Your task to perform on an android device: toggle show notifications on the lock screen Image 0: 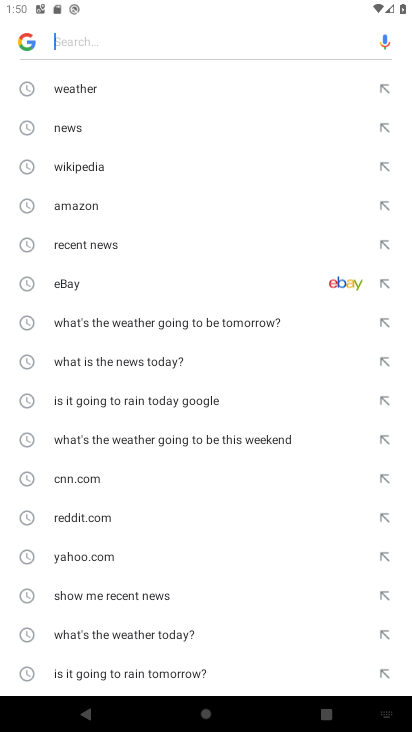
Step 0: press home button
Your task to perform on an android device: toggle show notifications on the lock screen Image 1: 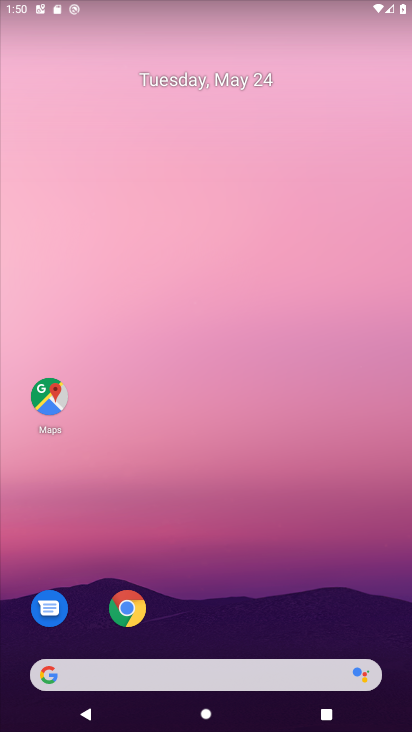
Step 1: drag from (232, 625) to (243, 136)
Your task to perform on an android device: toggle show notifications on the lock screen Image 2: 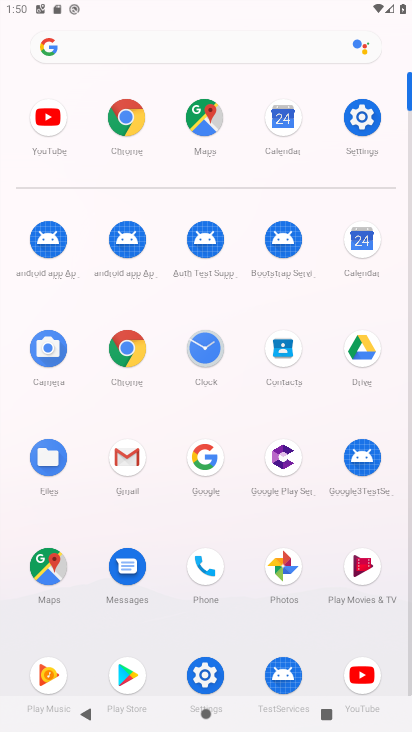
Step 2: click (372, 138)
Your task to perform on an android device: toggle show notifications on the lock screen Image 3: 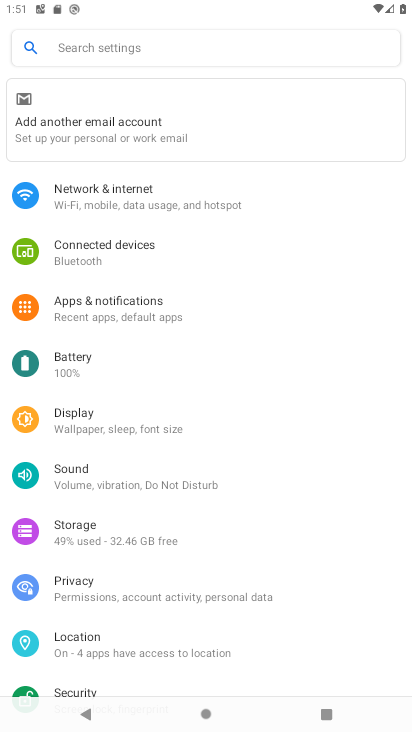
Step 3: click (129, 321)
Your task to perform on an android device: toggle show notifications on the lock screen Image 4: 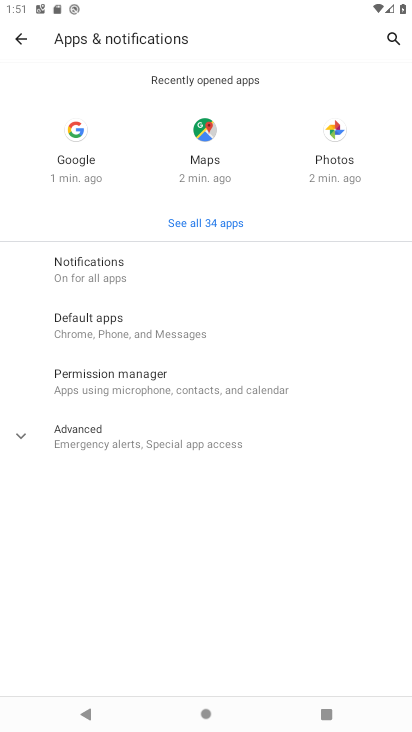
Step 4: click (115, 279)
Your task to perform on an android device: toggle show notifications on the lock screen Image 5: 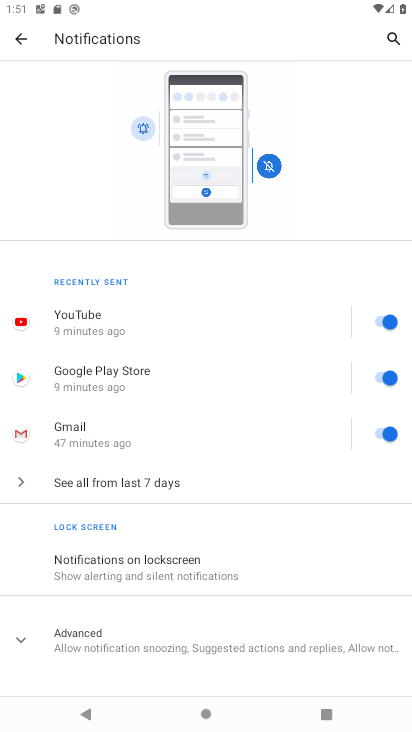
Step 5: click (199, 555)
Your task to perform on an android device: toggle show notifications on the lock screen Image 6: 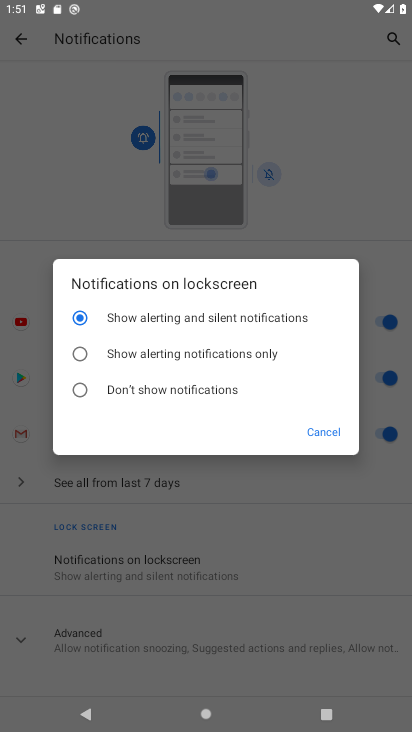
Step 6: click (231, 364)
Your task to perform on an android device: toggle show notifications on the lock screen Image 7: 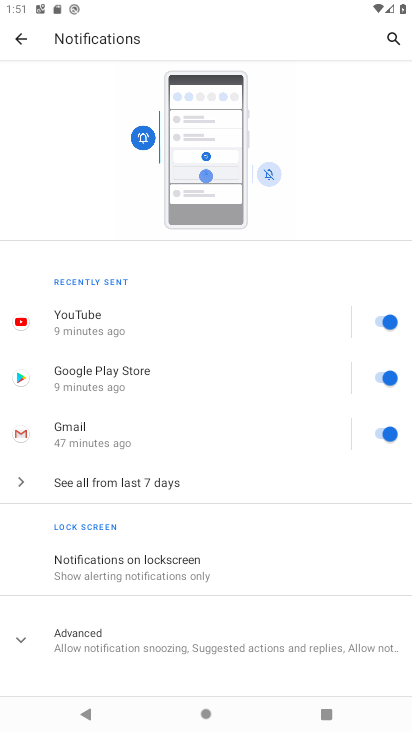
Step 7: task complete